Your task to perform on an android device: Go to Wikipedia Image 0: 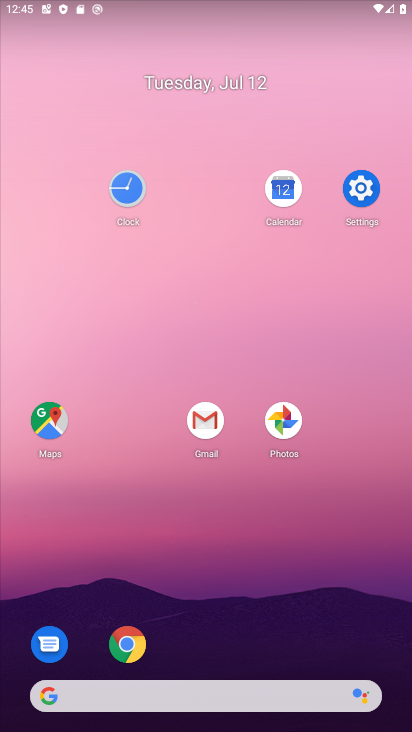
Step 0: click (129, 631)
Your task to perform on an android device: Go to Wikipedia Image 1: 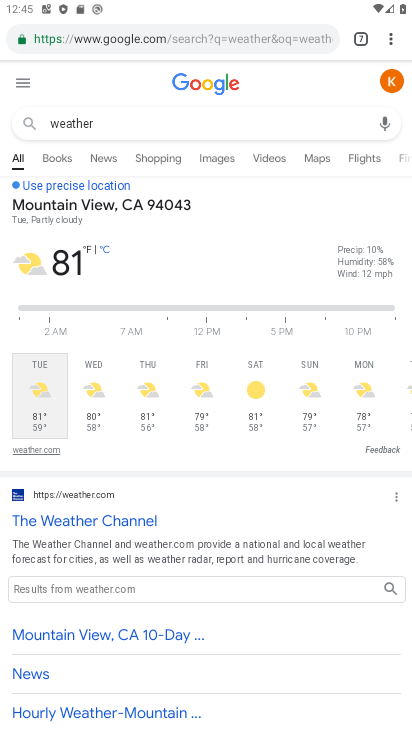
Step 1: click (364, 36)
Your task to perform on an android device: Go to Wikipedia Image 2: 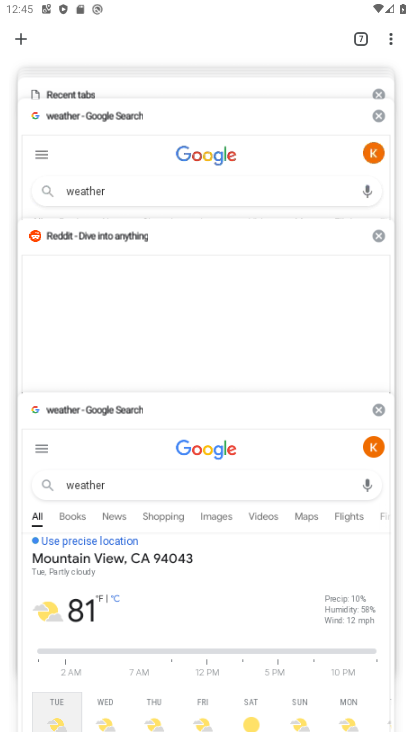
Step 2: drag from (170, 167) to (148, 528)
Your task to perform on an android device: Go to Wikipedia Image 3: 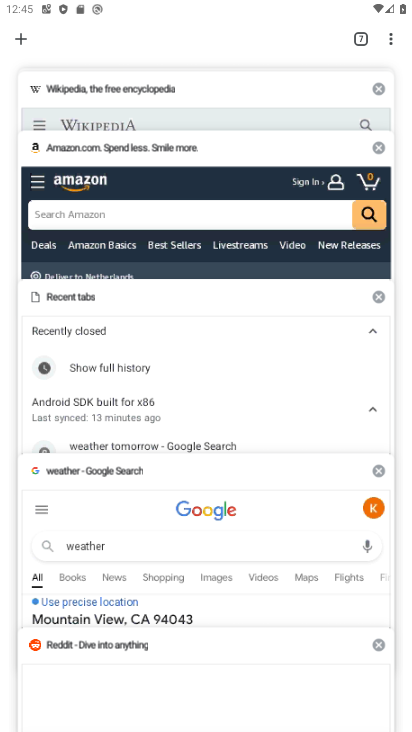
Step 3: click (170, 85)
Your task to perform on an android device: Go to Wikipedia Image 4: 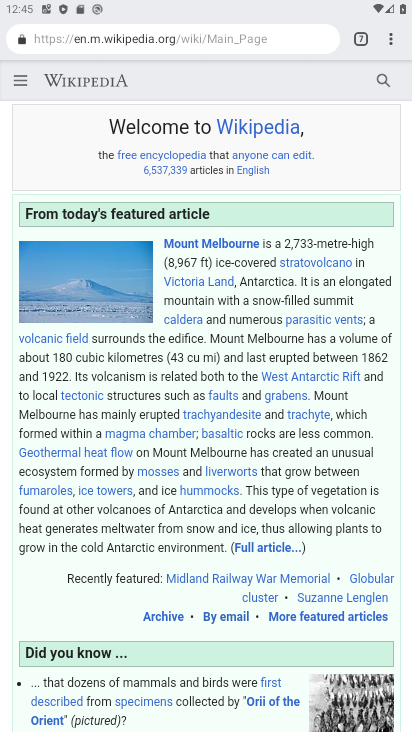
Step 4: task complete